Your task to perform on an android device: delete a single message in the gmail app Image 0: 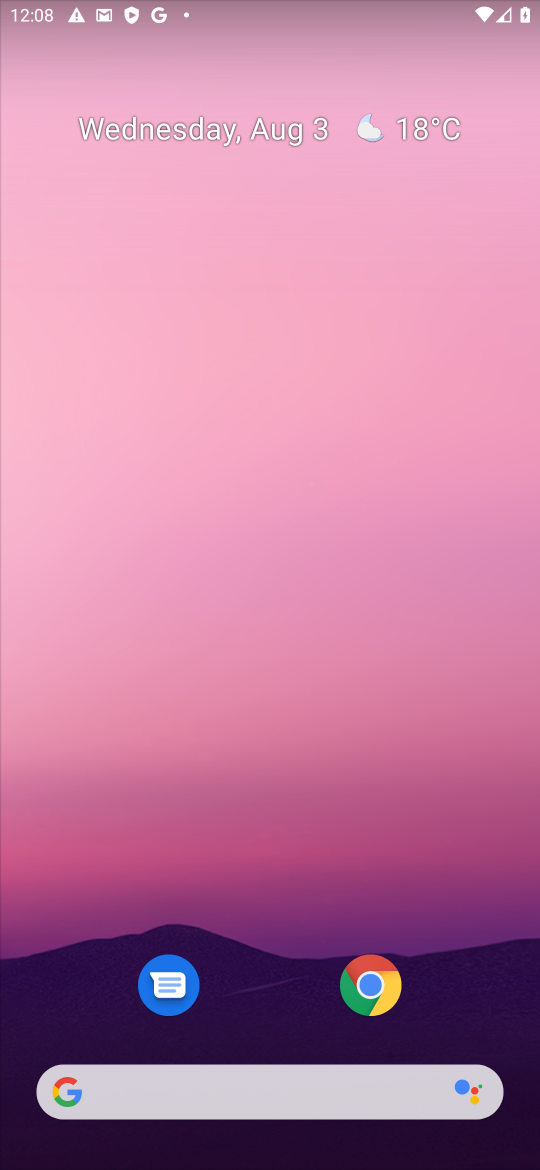
Step 0: drag from (305, 1014) to (255, 196)
Your task to perform on an android device: delete a single message in the gmail app Image 1: 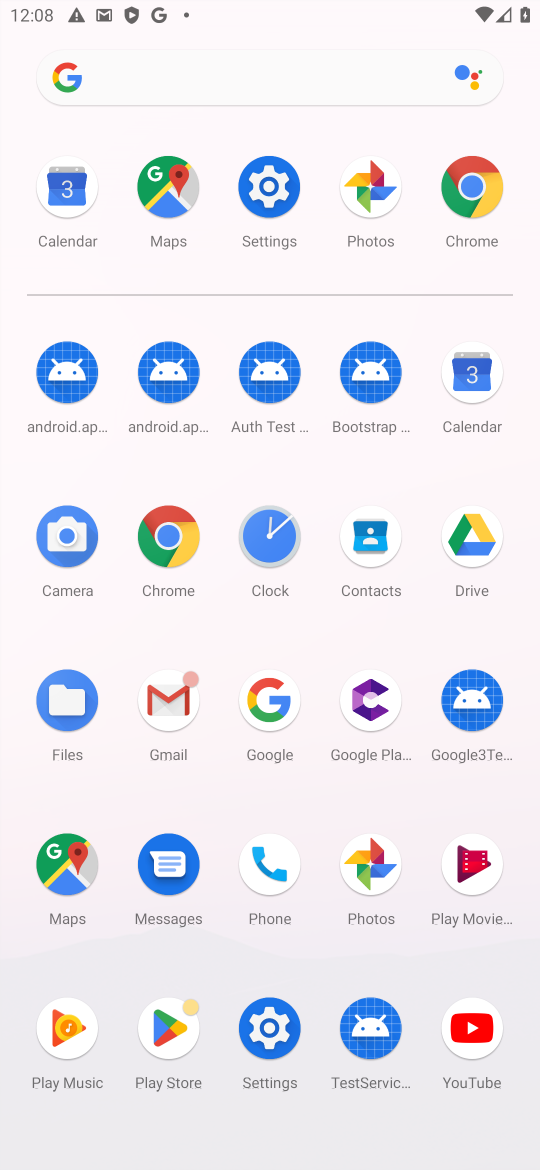
Step 1: click (186, 705)
Your task to perform on an android device: delete a single message in the gmail app Image 2: 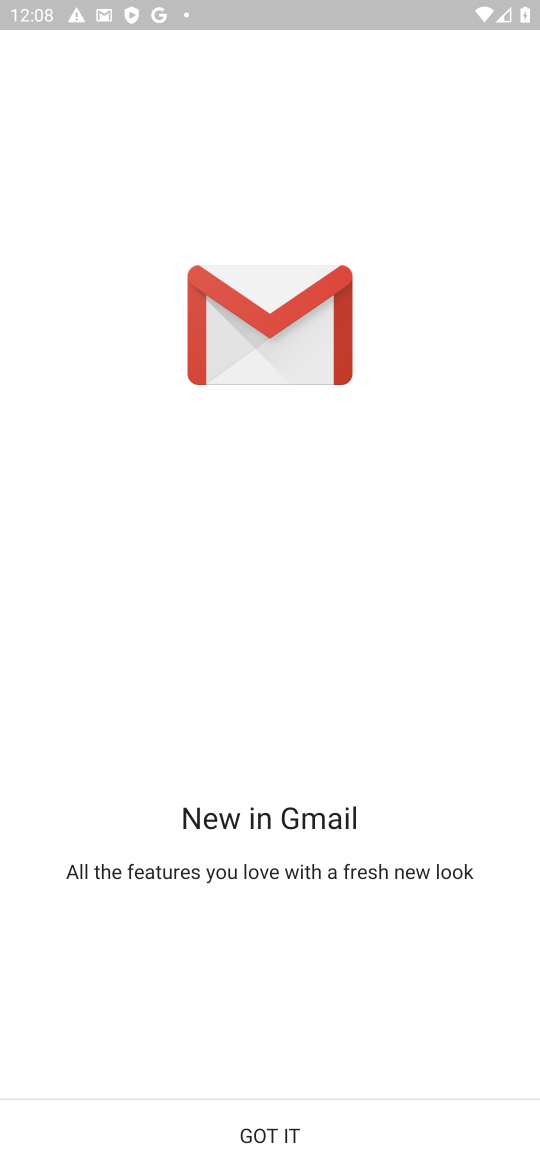
Step 2: click (239, 1152)
Your task to perform on an android device: delete a single message in the gmail app Image 3: 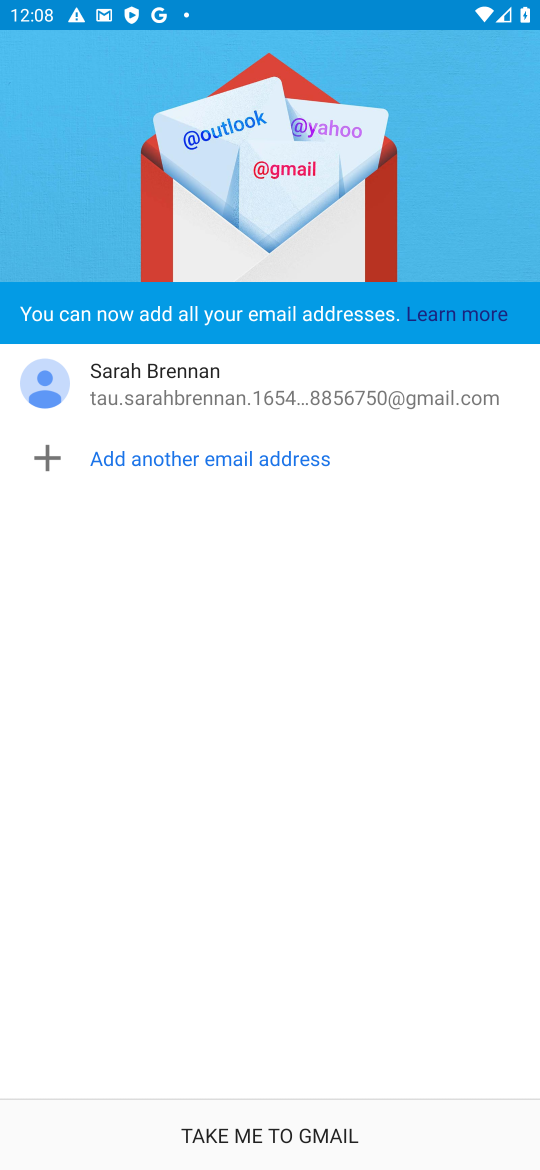
Step 3: click (239, 1152)
Your task to perform on an android device: delete a single message in the gmail app Image 4: 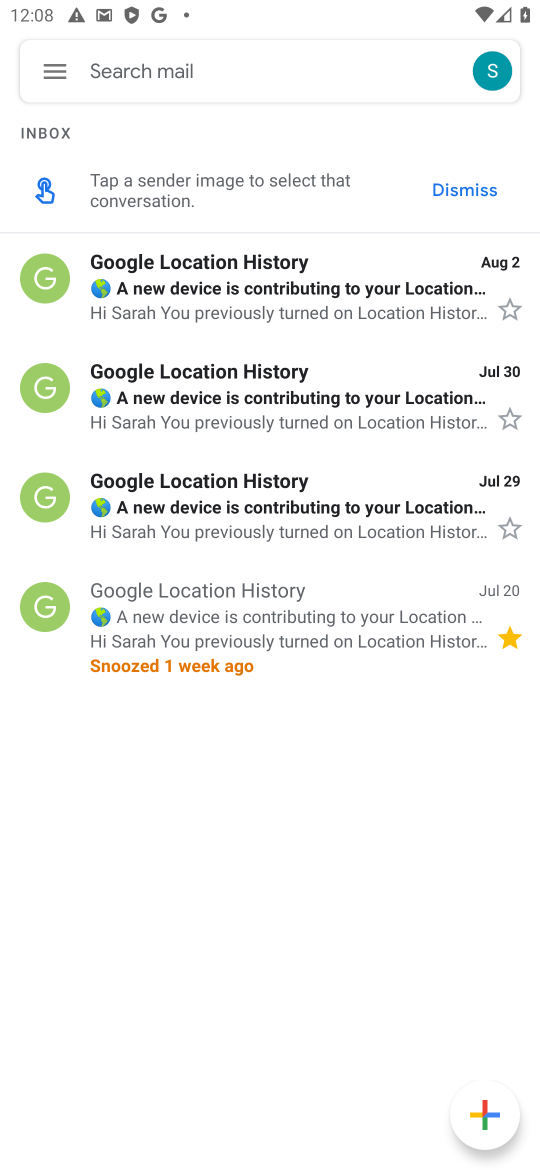
Step 4: click (463, 301)
Your task to perform on an android device: delete a single message in the gmail app Image 5: 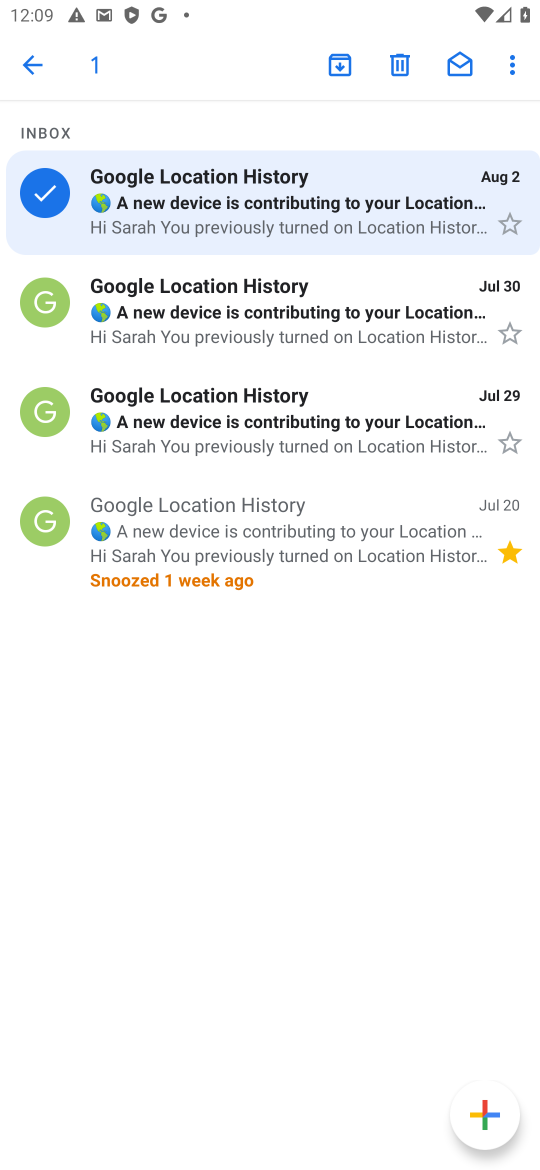
Step 5: click (395, 72)
Your task to perform on an android device: delete a single message in the gmail app Image 6: 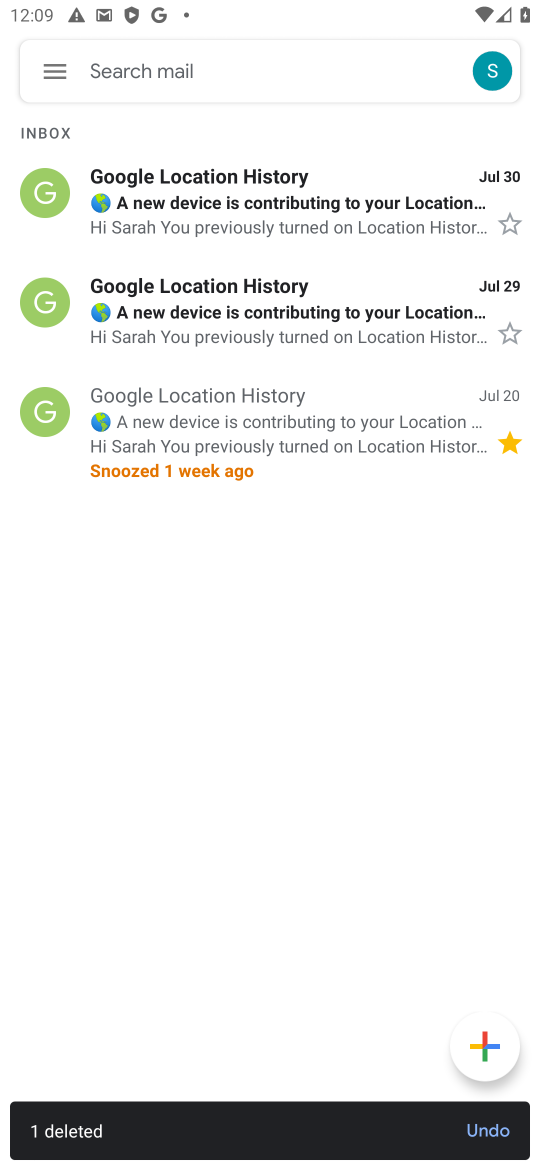
Step 6: task complete